Your task to perform on an android device: Open Chrome and go to the settings page Image 0: 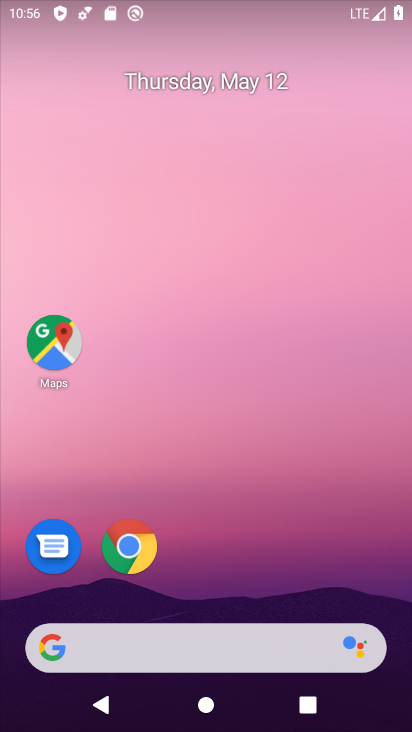
Step 0: click (143, 552)
Your task to perform on an android device: Open Chrome and go to the settings page Image 1: 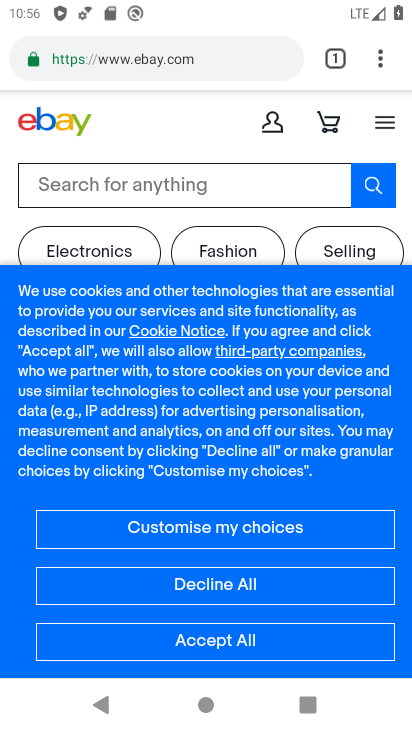
Step 1: click (380, 64)
Your task to perform on an android device: Open Chrome and go to the settings page Image 2: 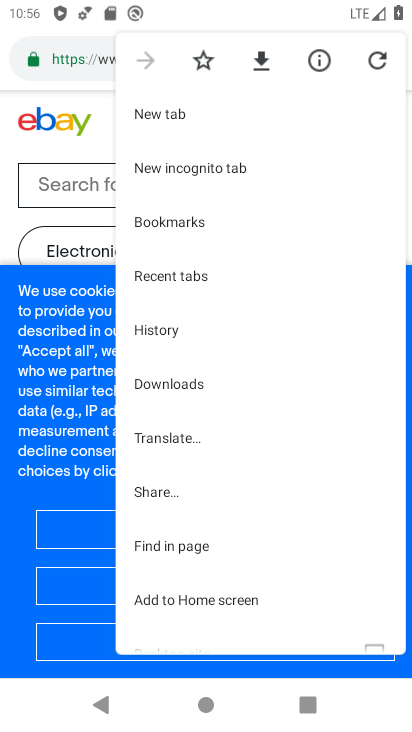
Step 2: drag from (228, 590) to (211, 271)
Your task to perform on an android device: Open Chrome and go to the settings page Image 3: 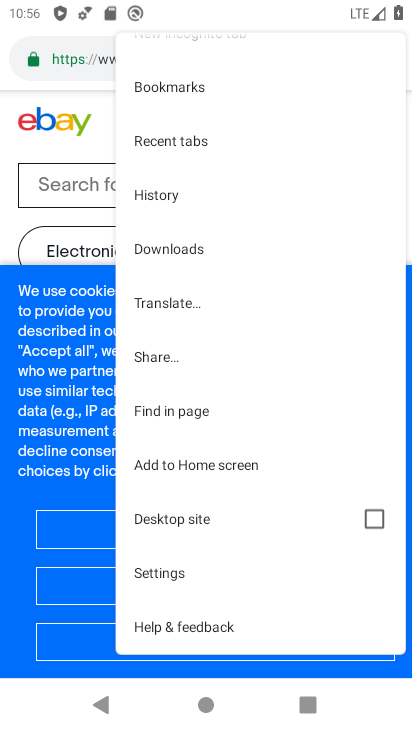
Step 3: click (170, 572)
Your task to perform on an android device: Open Chrome and go to the settings page Image 4: 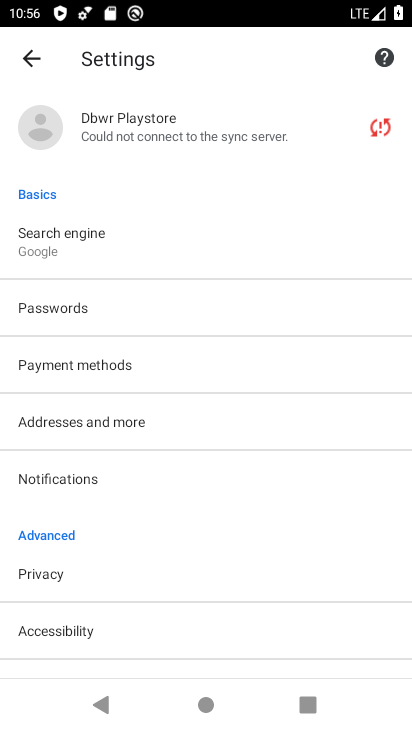
Step 4: task complete